Your task to perform on an android device: turn on notifications settings in the gmail app Image 0: 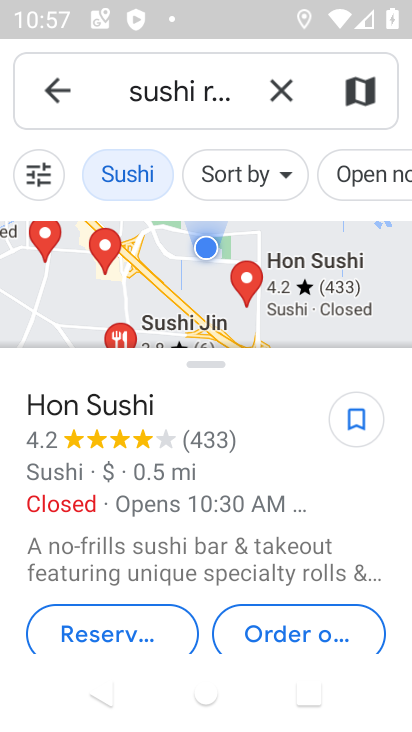
Step 0: press home button
Your task to perform on an android device: turn on notifications settings in the gmail app Image 1: 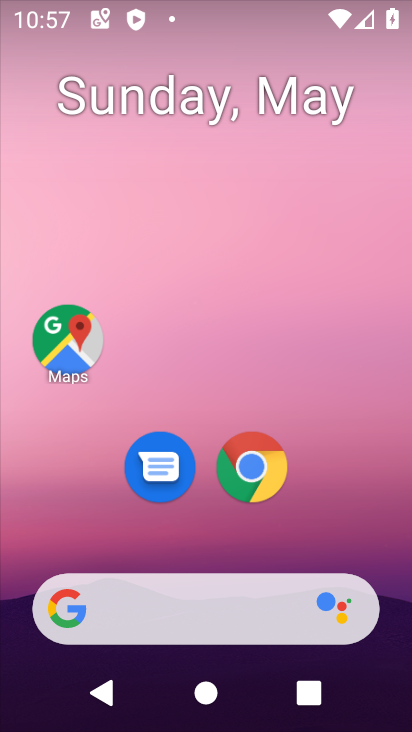
Step 1: drag from (355, 557) to (358, 2)
Your task to perform on an android device: turn on notifications settings in the gmail app Image 2: 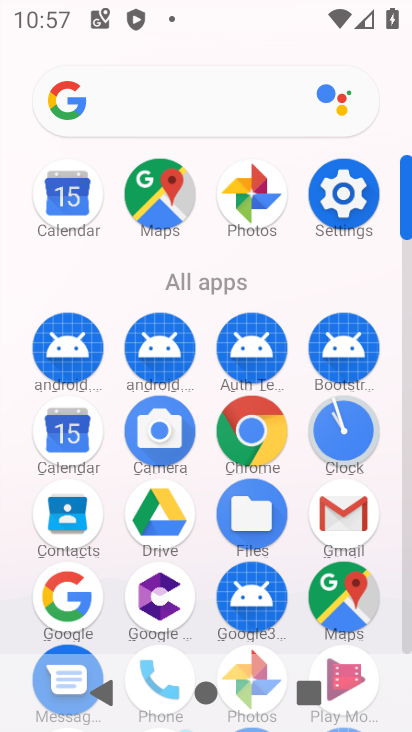
Step 2: click (341, 518)
Your task to perform on an android device: turn on notifications settings in the gmail app Image 3: 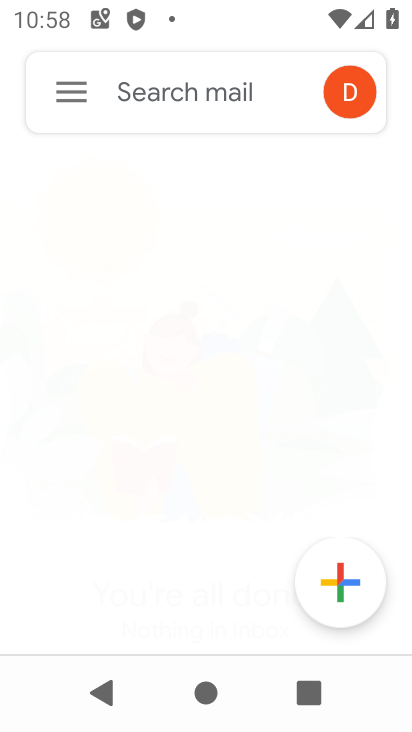
Step 3: click (58, 91)
Your task to perform on an android device: turn on notifications settings in the gmail app Image 4: 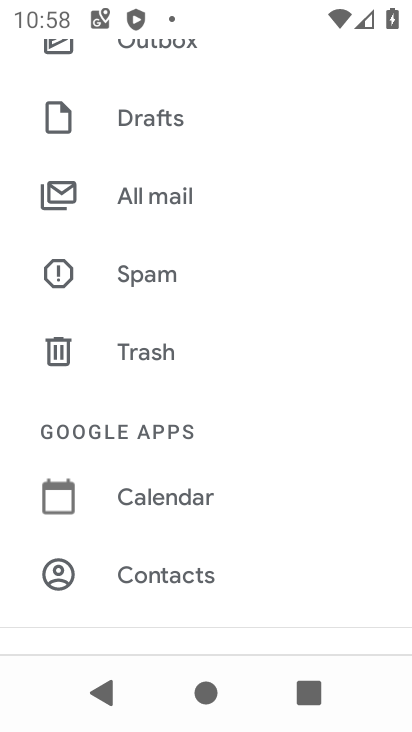
Step 4: drag from (265, 494) to (254, 53)
Your task to perform on an android device: turn on notifications settings in the gmail app Image 5: 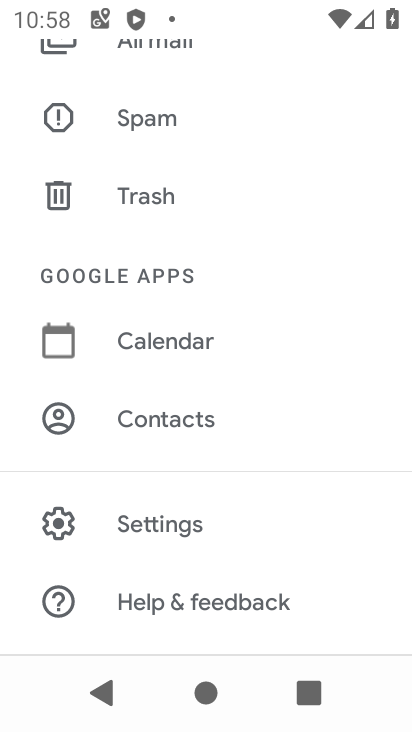
Step 5: click (148, 525)
Your task to perform on an android device: turn on notifications settings in the gmail app Image 6: 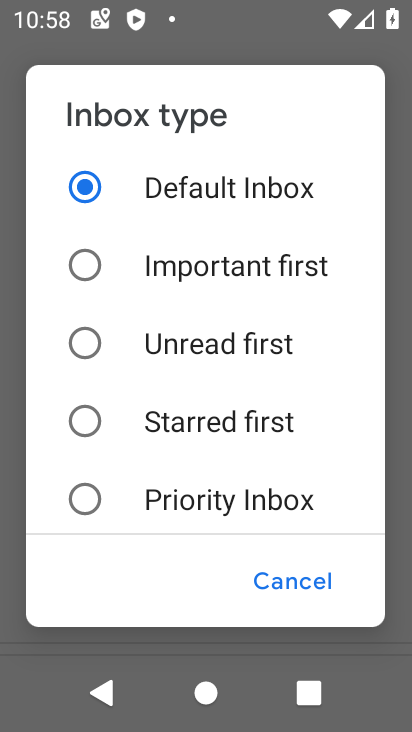
Step 6: click (262, 573)
Your task to perform on an android device: turn on notifications settings in the gmail app Image 7: 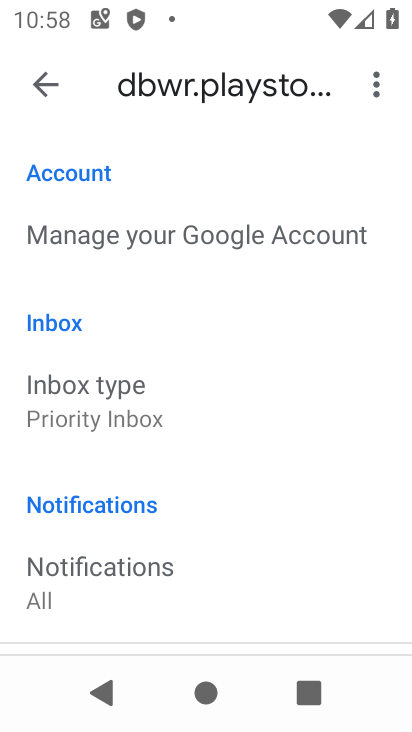
Step 7: click (56, 90)
Your task to perform on an android device: turn on notifications settings in the gmail app Image 8: 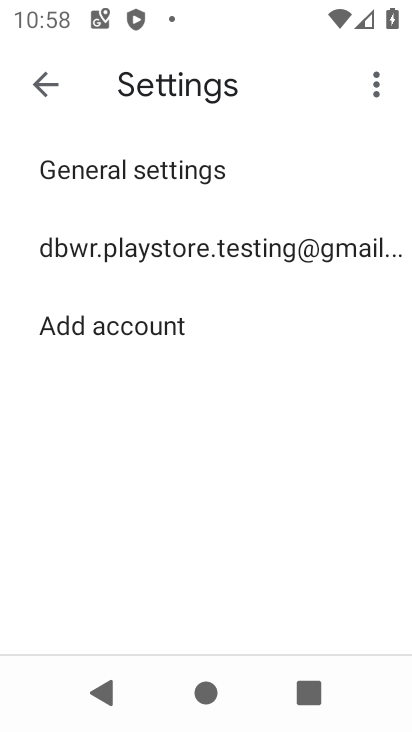
Step 8: click (116, 185)
Your task to perform on an android device: turn on notifications settings in the gmail app Image 9: 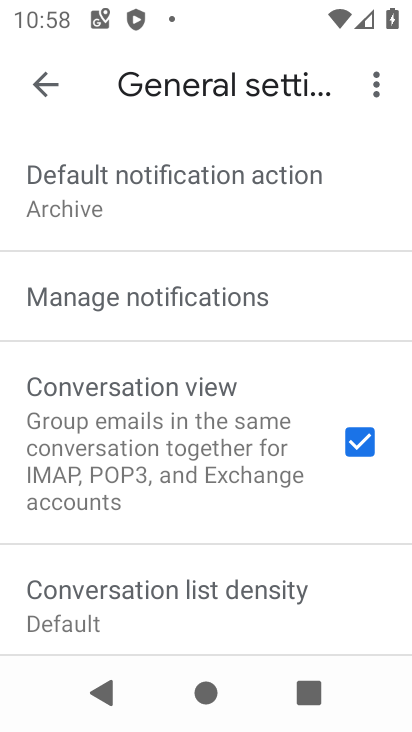
Step 9: click (110, 295)
Your task to perform on an android device: turn on notifications settings in the gmail app Image 10: 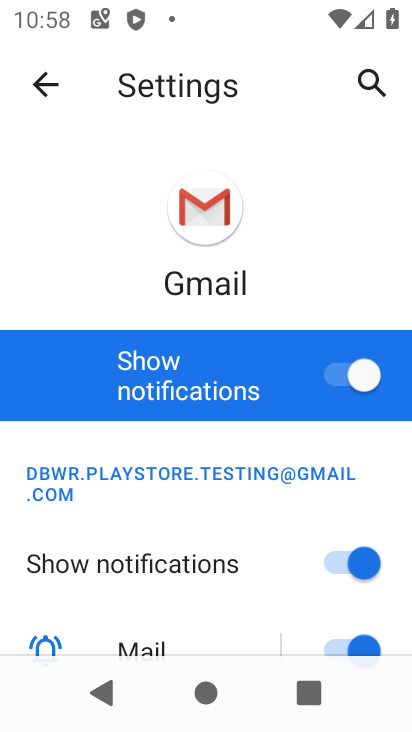
Step 10: task complete